Your task to perform on an android device: Open Google Image 0: 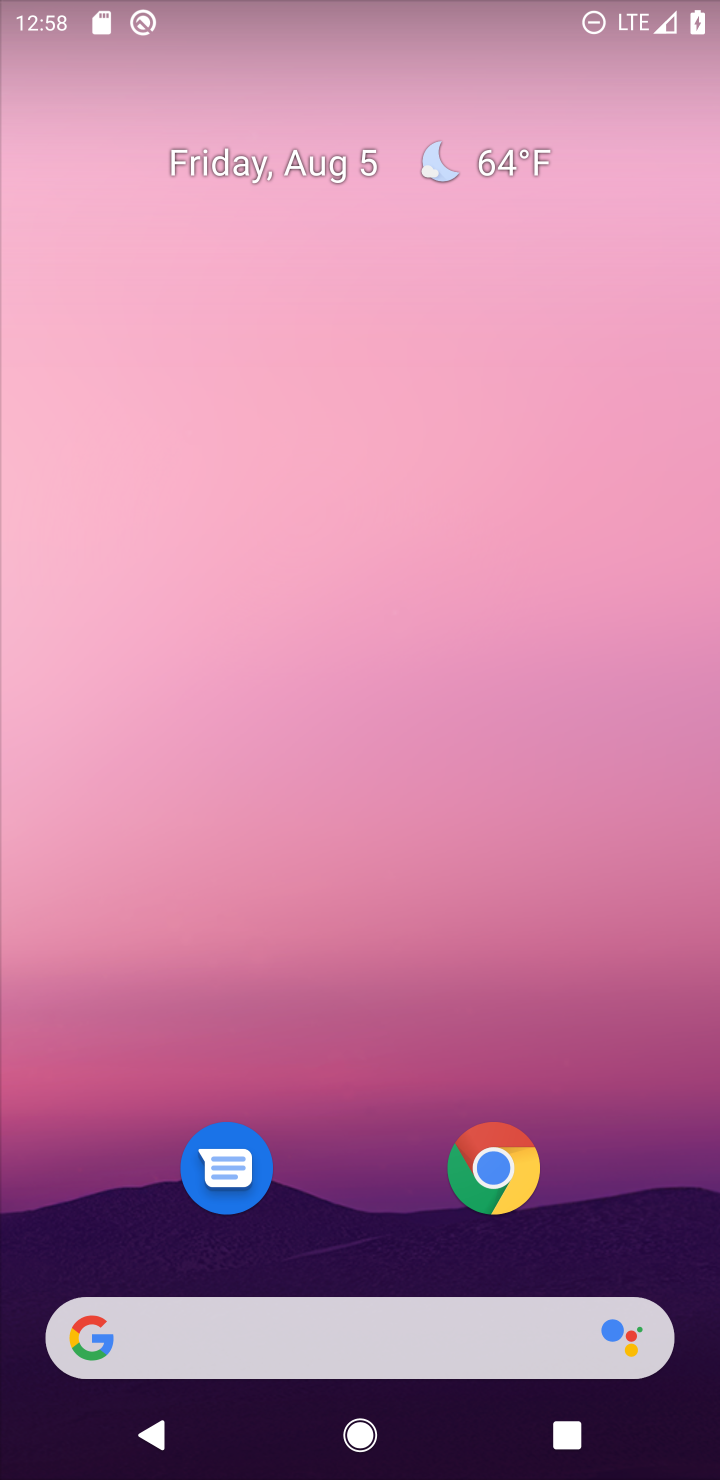
Step 0: drag from (579, 976) to (288, 45)
Your task to perform on an android device: Open Google Image 1: 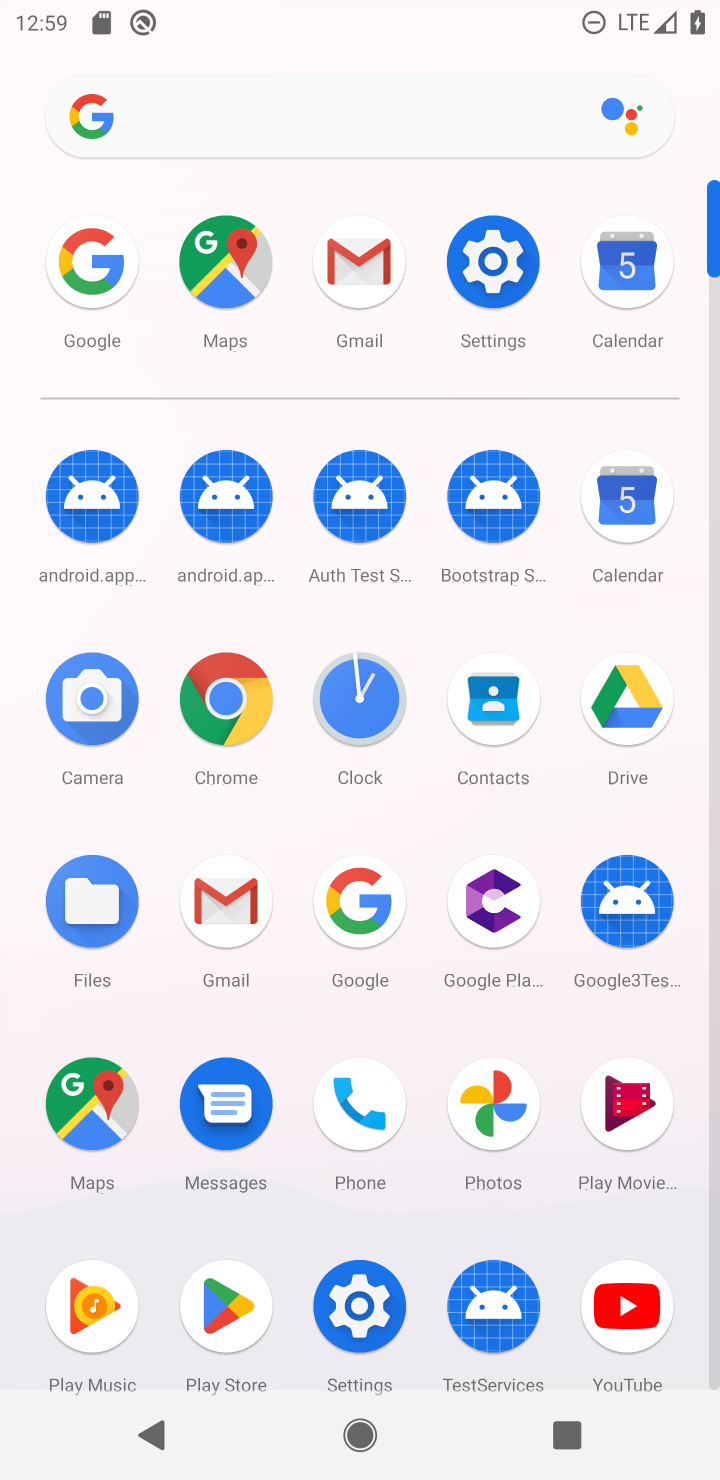
Step 1: click (376, 932)
Your task to perform on an android device: Open Google Image 2: 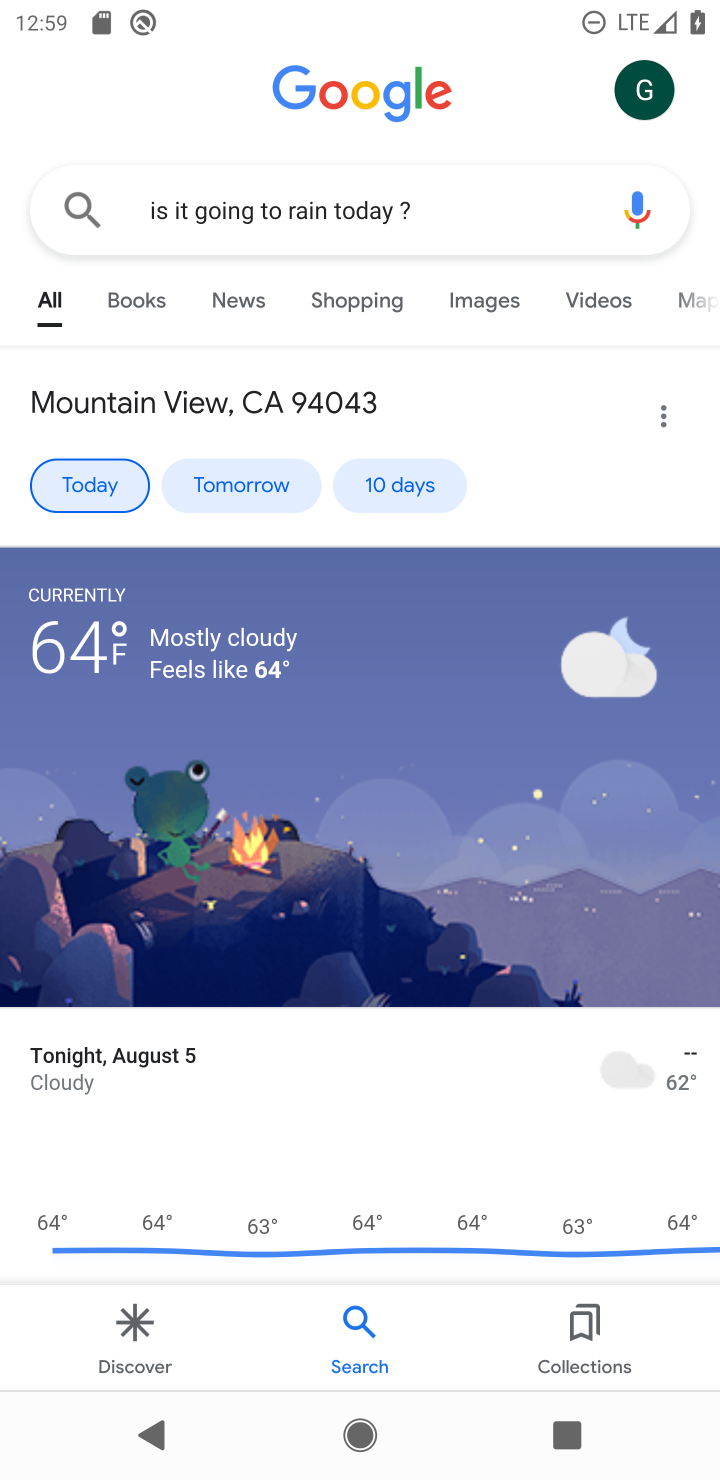
Step 2: task complete